Your task to perform on an android device: turn off translation in the chrome app Image 0: 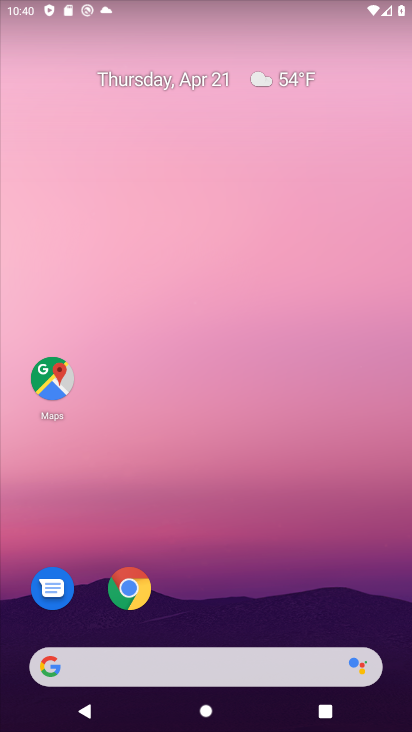
Step 0: drag from (268, 575) to (235, 38)
Your task to perform on an android device: turn off translation in the chrome app Image 1: 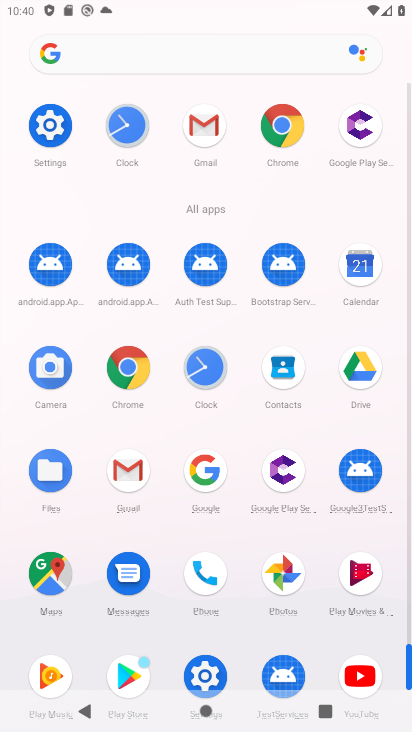
Step 1: click (289, 137)
Your task to perform on an android device: turn off translation in the chrome app Image 2: 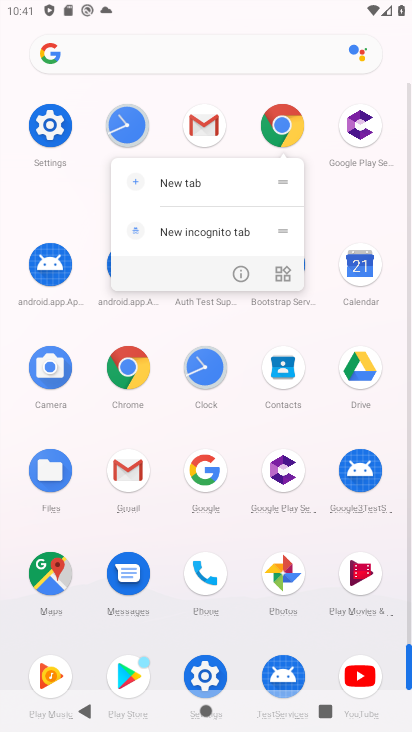
Step 2: click (291, 130)
Your task to perform on an android device: turn off translation in the chrome app Image 3: 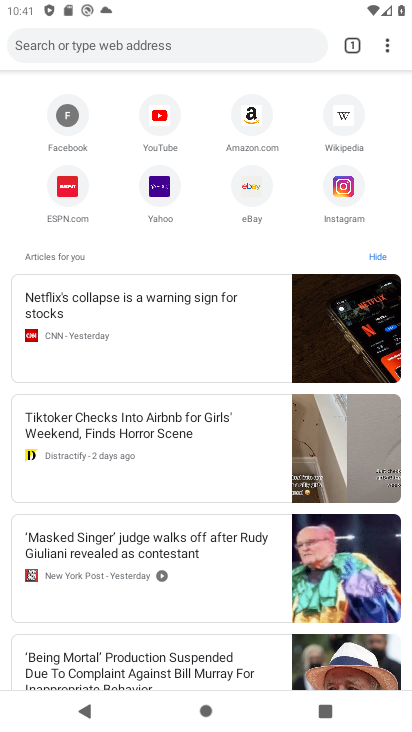
Step 3: click (383, 56)
Your task to perform on an android device: turn off translation in the chrome app Image 4: 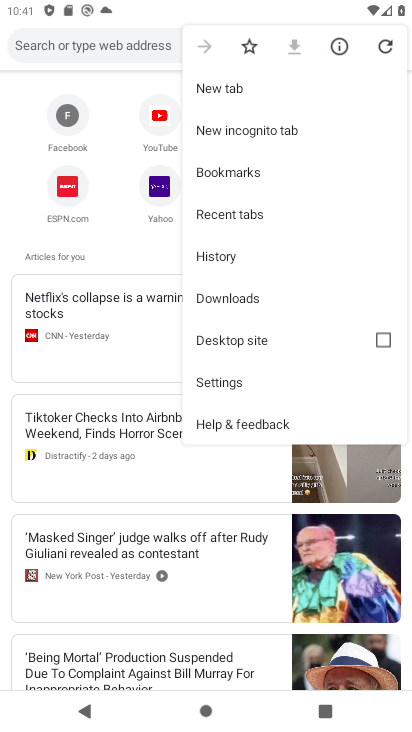
Step 4: click (216, 382)
Your task to perform on an android device: turn off translation in the chrome app Image 5: 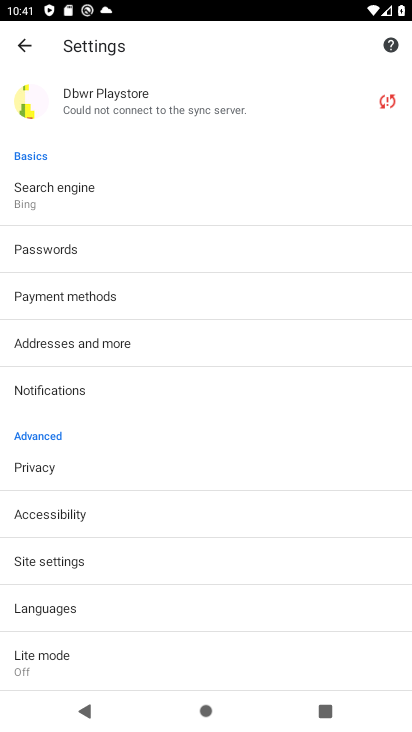
Step 5: click (78, 383)
Your task to perform on an android device: turn off translation in the chrome app Image 6: 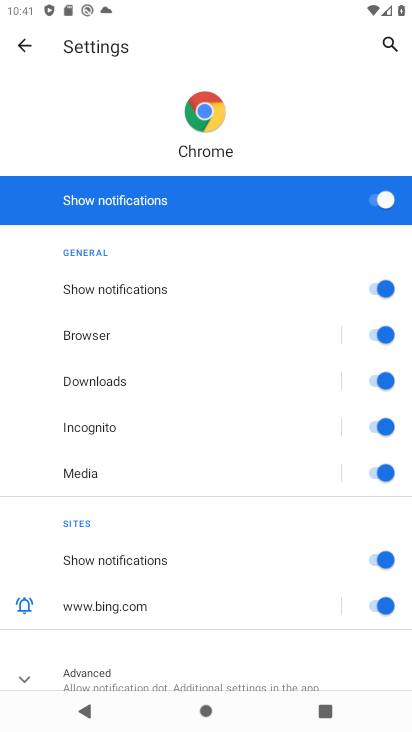
Step 6: click (393, 197)
Your task to perform on an android device: turn off translation in the chrome app Image 7: 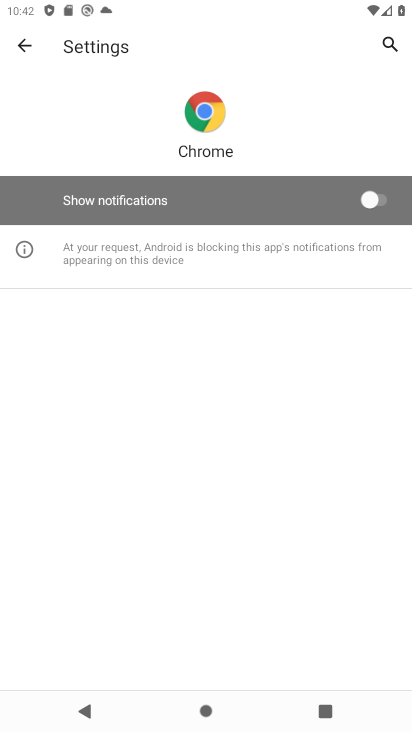
Step 7: click (371, 206)
Your task to perform on an android device: turn off translation in the chrome app Image 8: 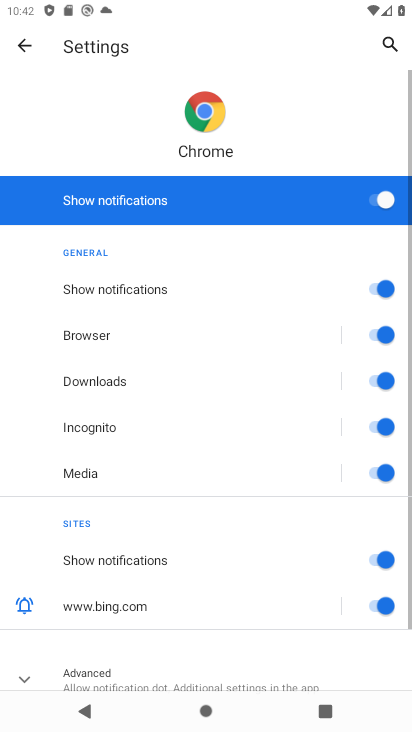
Step 8: click (29, 43)
Your task to perform on an android device: turn off translation in the chrome app Image 9: 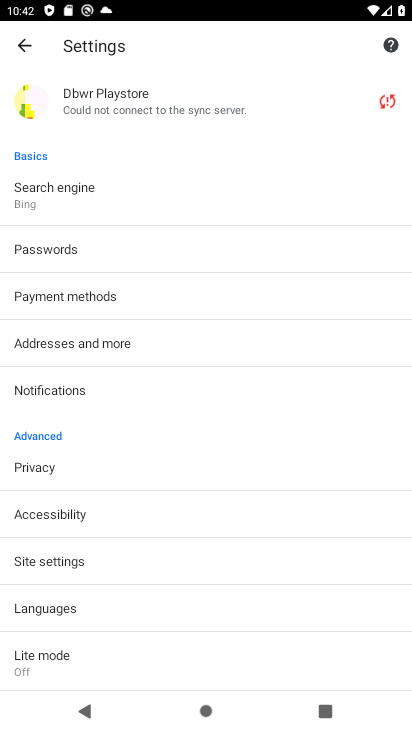
Step 9: click (76, 604)
Your task to perform on an android device: turn off translation in the chrome app Image 10: 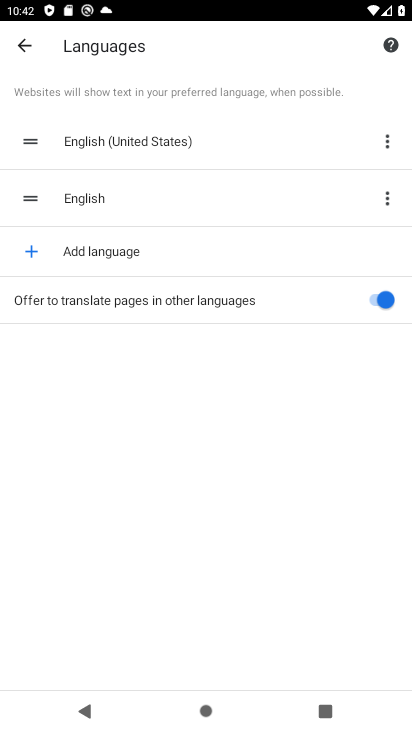
Step 10: click (374, 296)
Your task to perform on an android device: turn off translation in the chrome app Image 11: 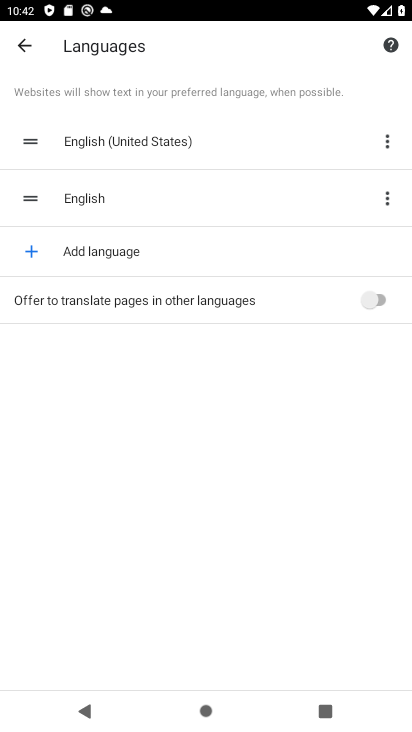
Step 11: task complete